Your task to perform on an android device: add a contact Image 0: 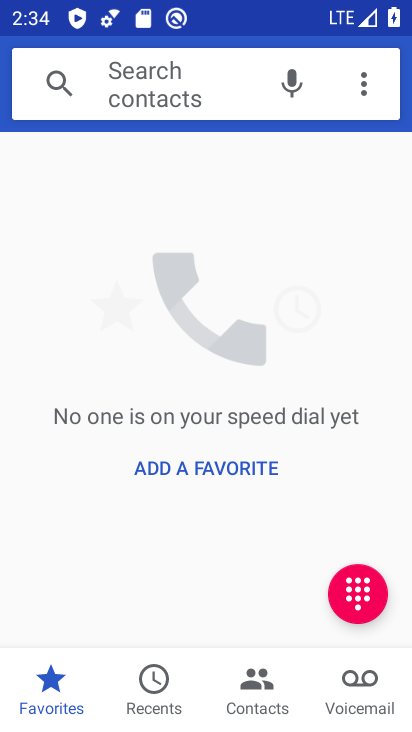
Step 0: press home button
Your task to perform on an android device: add a contact Image 1: 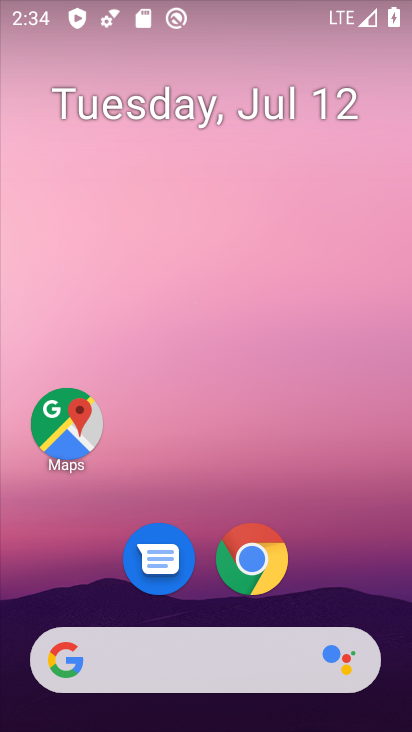
Step 1: drag from (373, 567) to (370, 173)
Your task to perform on an android device: add a contact Image 2: 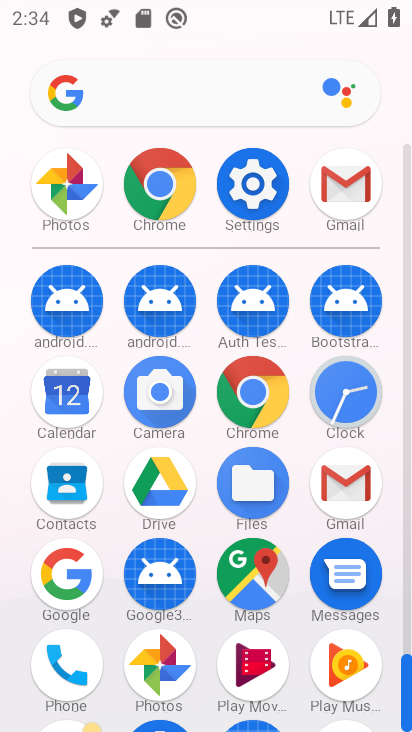
Step 2: click (67, 491)
Your task to perform on an android device: add a contact Image 3: 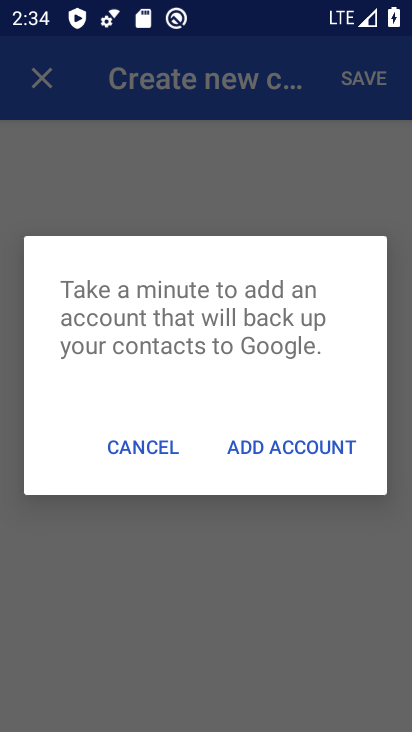
Step 3: click (309, 448)
Your task to perform on an android device: add a contact Image 4: 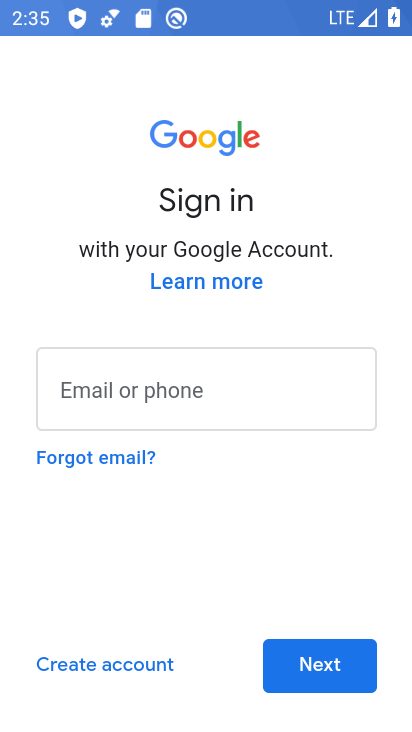
Step 4: task complete